Your task to perform on an android device: change notification settings in the gmail app Image 0: 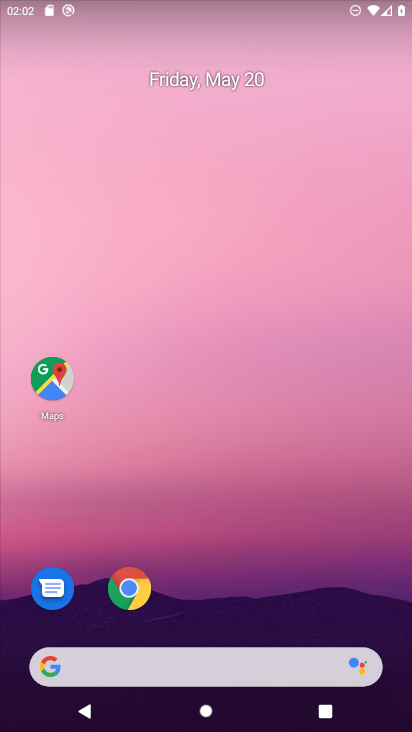
Step 0: drag from (388, 616) to (307, 37)
Your task to perform on an android device: change notification settings in the gmail app Image 1: 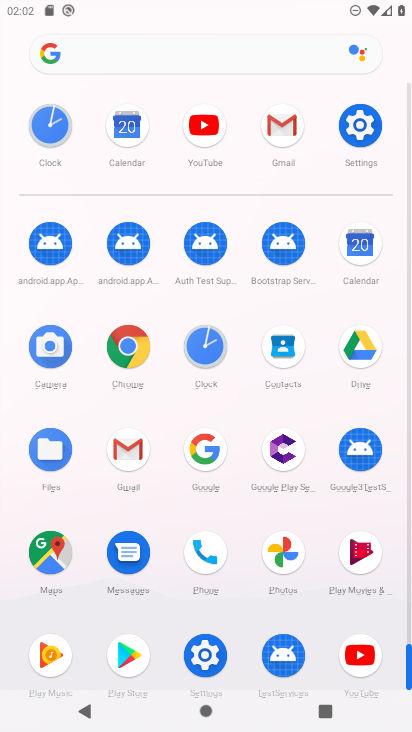
Step 1: click (123, 448)
Your task to perform on an android device: change notification settings in the gmail app Image 2: 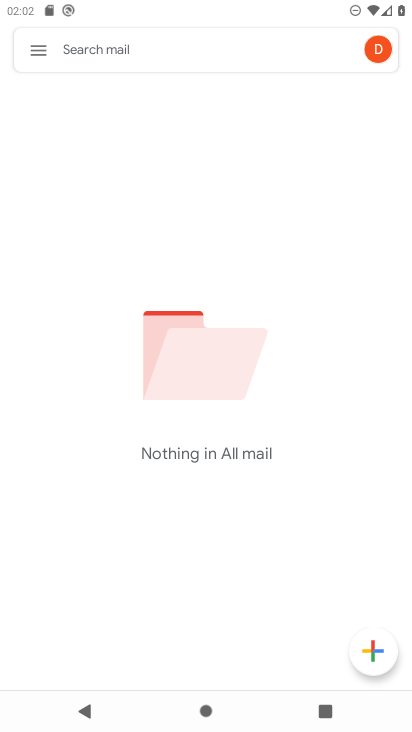
Step 2: click (36, 53)
Your task to perform on an android device: change notification settings in the gmail app Image 3: 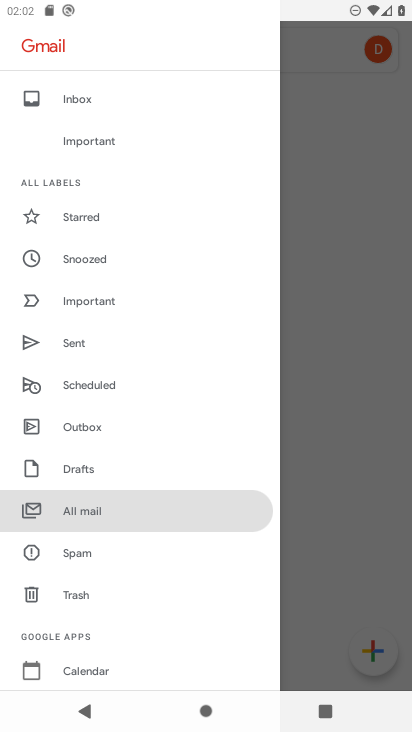
Step 3: drag from (195, 614) to (185, 194)
Your task to perform on an android device: change notification settings in the gmail app Image 4: 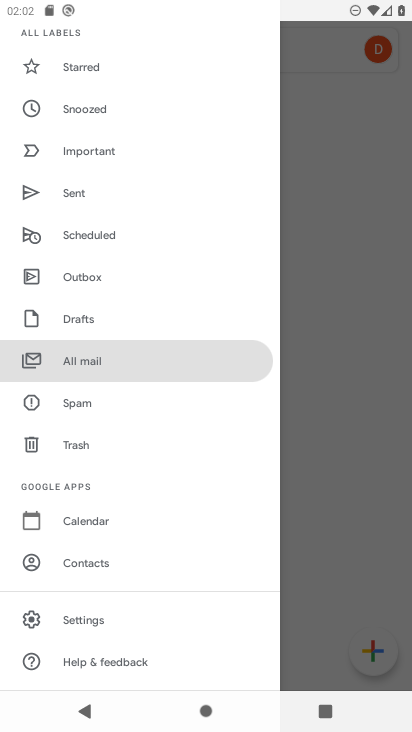
Step 4: click (86, 618)
Your task to perform on an android device: change notification settings in the gmail app Image 5: 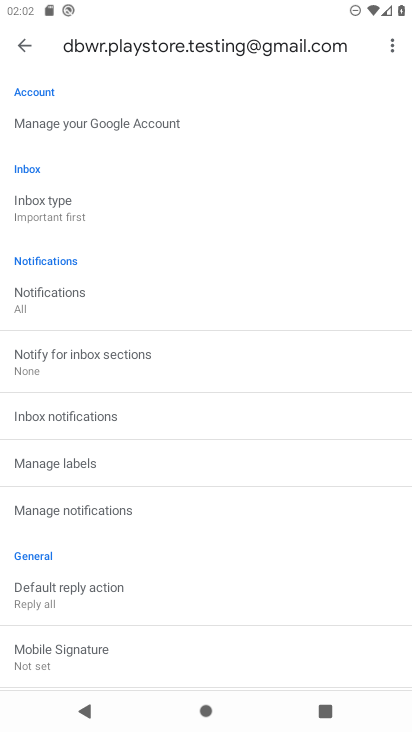
Step 5: click (75, 497)
Your task to perform on an android device: change notification settings in the gmail app Image 6: 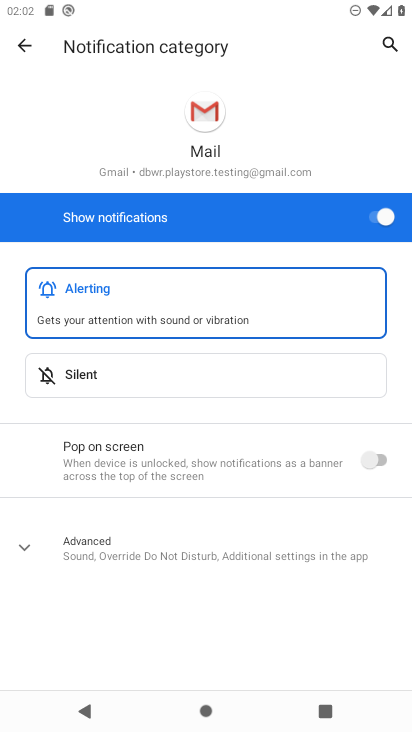
Step 6: click (10, 538)
Your task to perform on an android device: change notification settings in the gmail app Image 7: 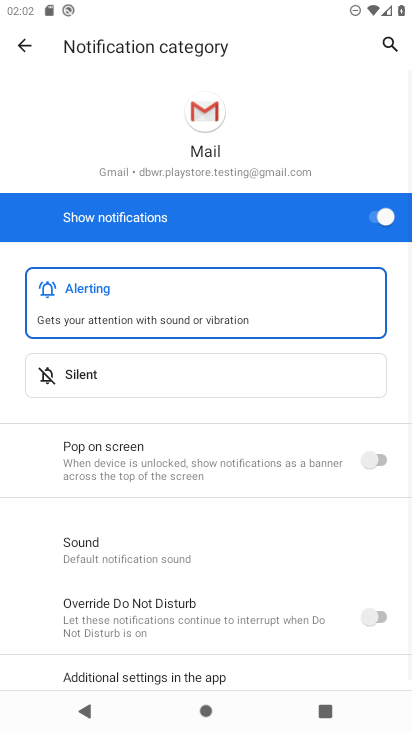
Step 7: click (385, 613)
Your task to perform on an android device: change notification settings in the gmail app Image 8: 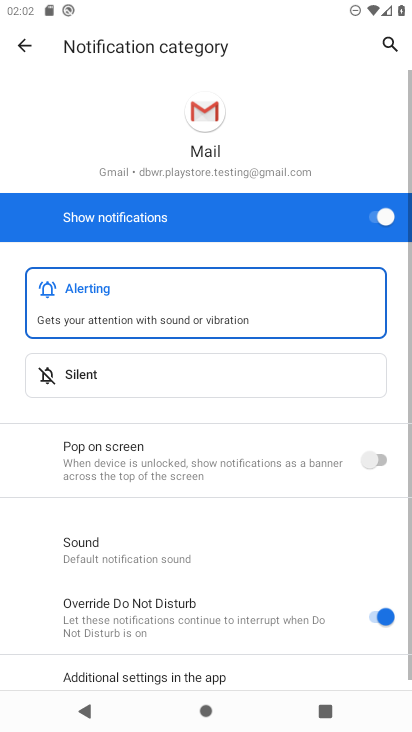
Step 8: click (384, 457)
Your task to perform on an android device: change notification settings in the gmail app Image 9: 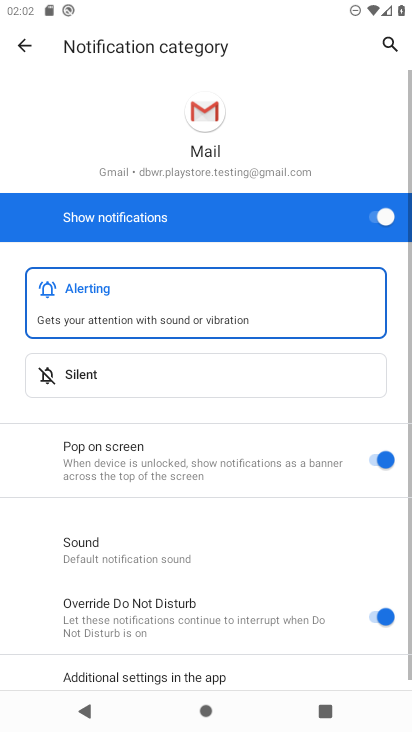
Step 9: task complete